Your task to perform on an android device: toggle notifications settings in the gmail app Image 0: 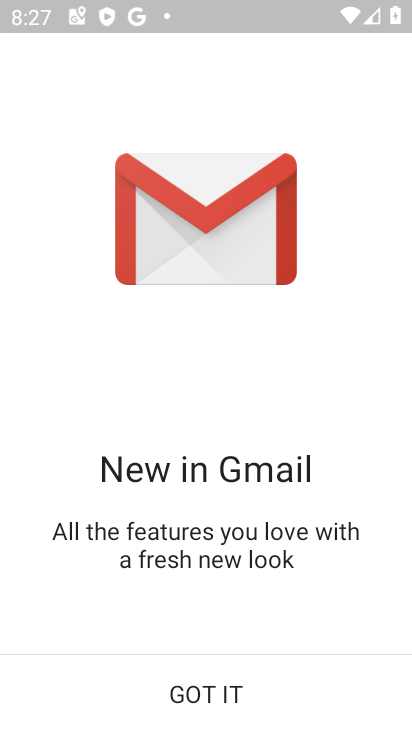
Step 0: press home button
Your task to perform on an android device: toggle notifications settings in the gmail app Image 1: 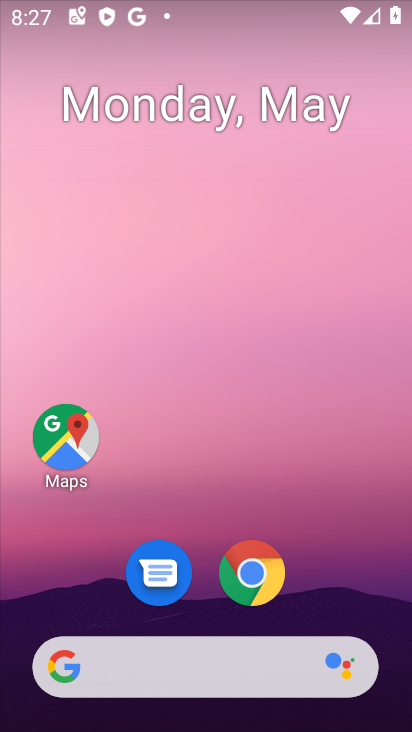
Step 1: drag from (157, 653) to (222, 218)
Your task to perform on an android device: toggle notifications settings in the gmail app Image 2: 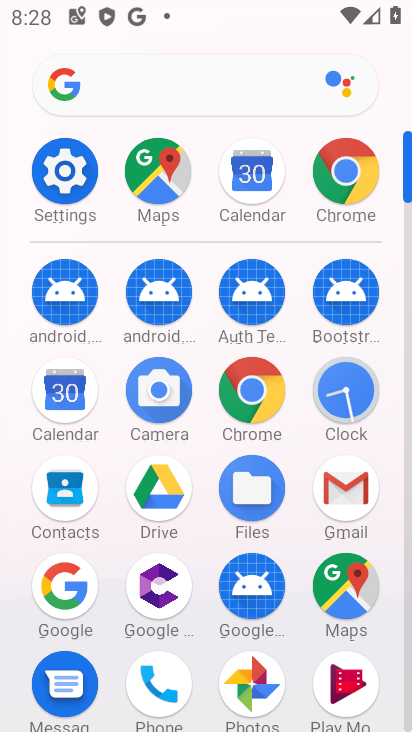
Step 2: click (352, 505)
Your task to perform on an android device: toggle notifications settings in the gmail app Image 3: 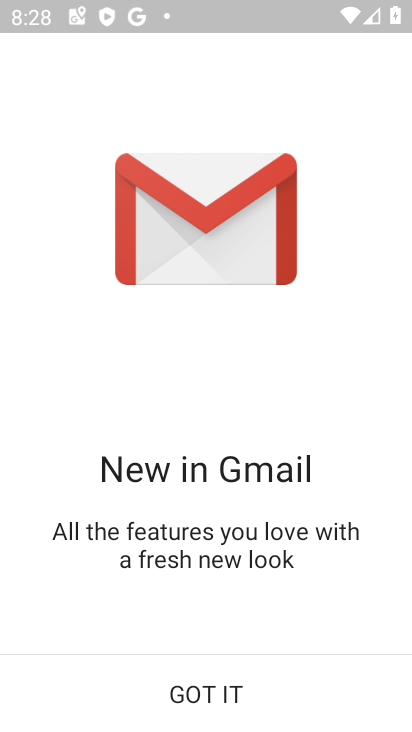
Step 3: click (216, 687)
Your task to perform on an android device: toggle notifications settings in the gmail app Image 4: 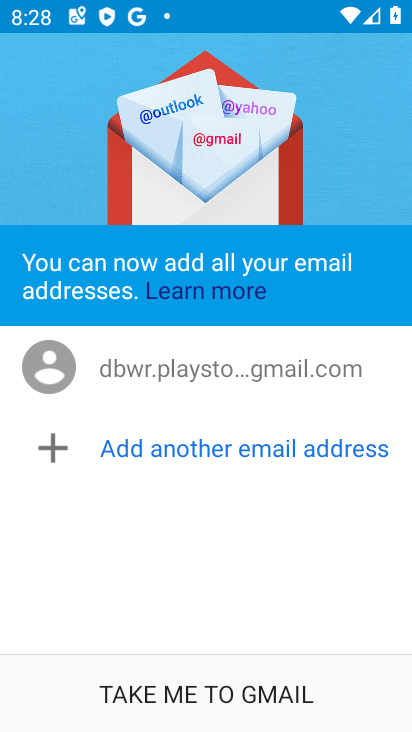
Step 4: click (229, 700)
Your task to perform on an android device: toggle notifications settings in the gmail app Image 5: 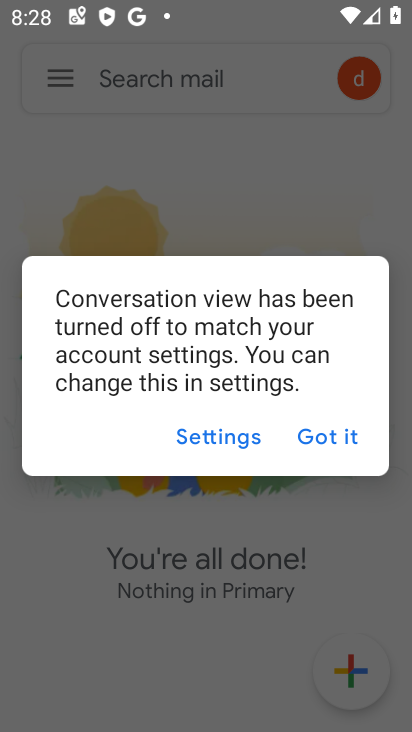
Step 5: click (333, 432)
Your task to perform on an android device: toggle notifications settings in the gmail app Image 6: 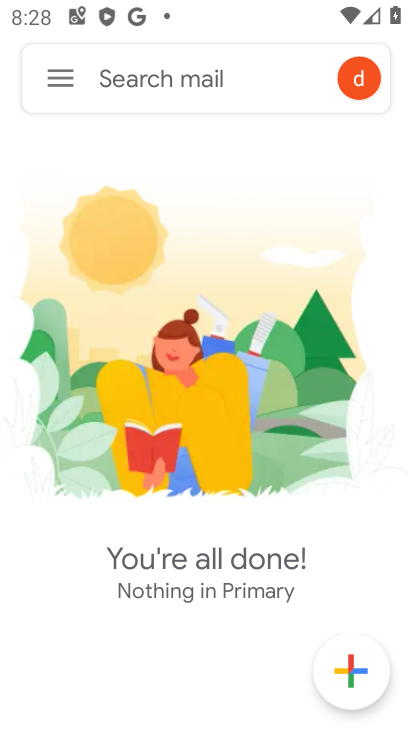
Step 6: click (59, 83)
Your task to perform on an android device: toggle notifications settings in the gmail app Image 7: 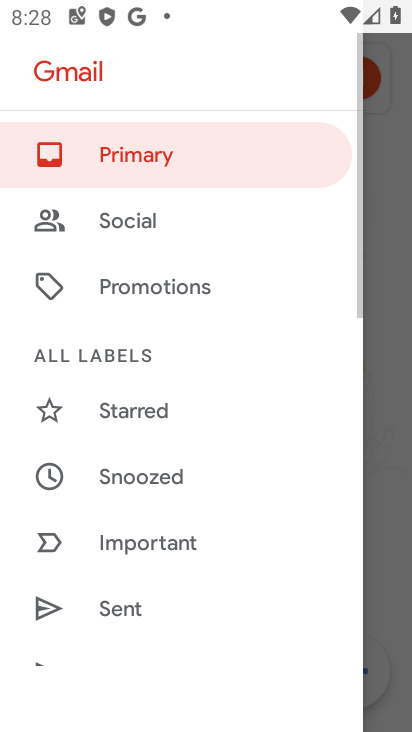
Step 7: drag from (154, 584) to (262, 85)
Your task to perform on an android device: toggle notifications settings in the gmail app Image 8: 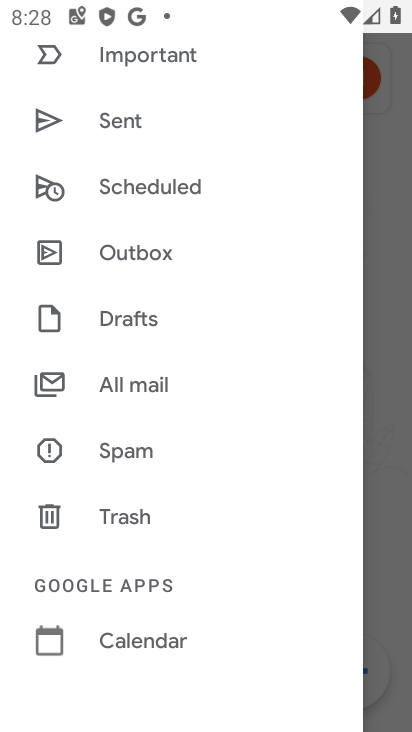
Step 8: drag from (137, 585) to (225, 184)
Your task to perform on an android device: toggle notifications settings in the gmail app Image 9: 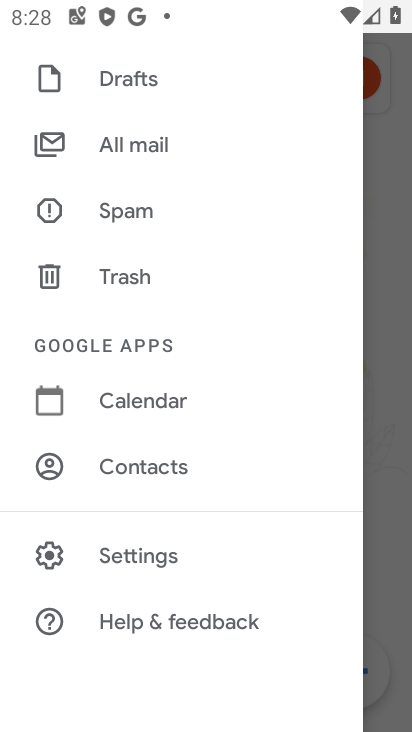
Step 9: click (137, 566)
Your task to perform on an android device: toggle notifications settings in the gmail app Image 10: 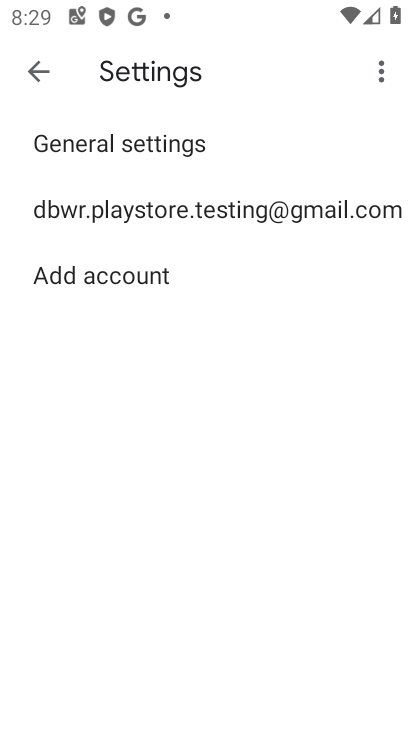
Step 10: click (118, 158)
Your task to perform on an android device: toggle notifications settings in the gmail app Image 11: 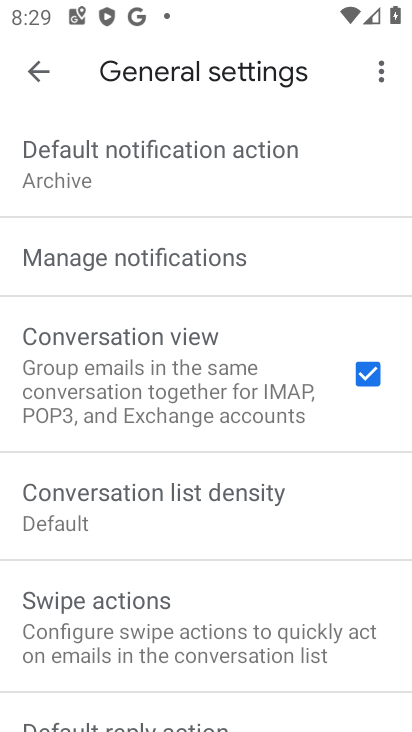
Step 11: click (147, 273)
Your task to perform on an android device: toggle notifications settings in the gmail app Image 12: 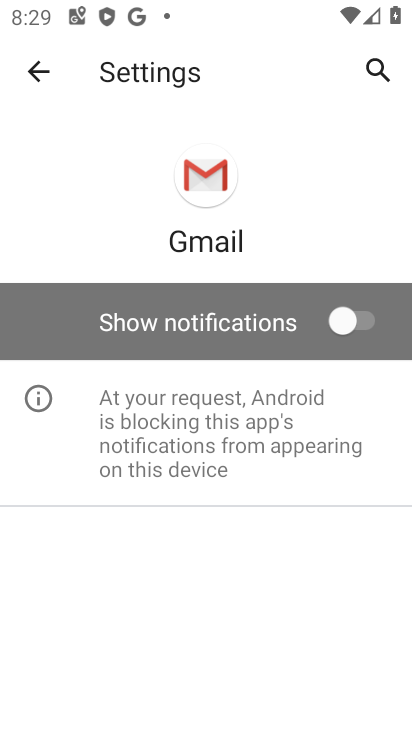
Step 12: click (292, 337)
Your task to perform on an android device: toggle notifications settings in the gmail app Image 13: 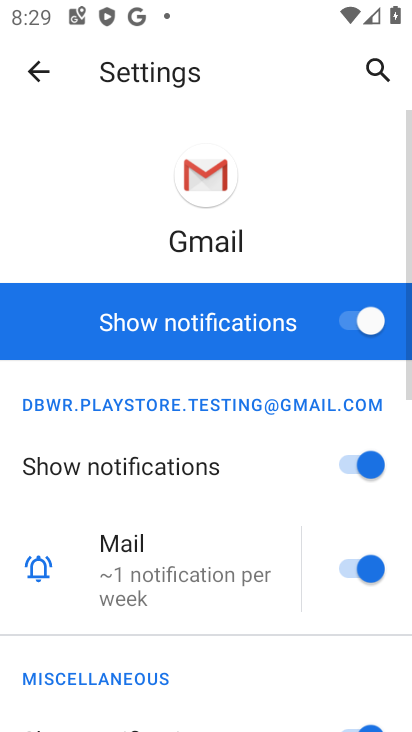
Step 13: task complete